Your task to perform on an android device: Go to Maps Image 0: 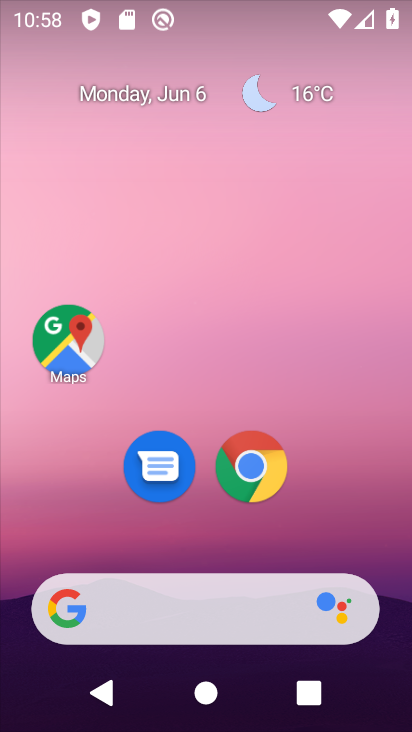
Step 0: click (40, 344)
Your task to perform on an android device: Go to Maps Image 1: 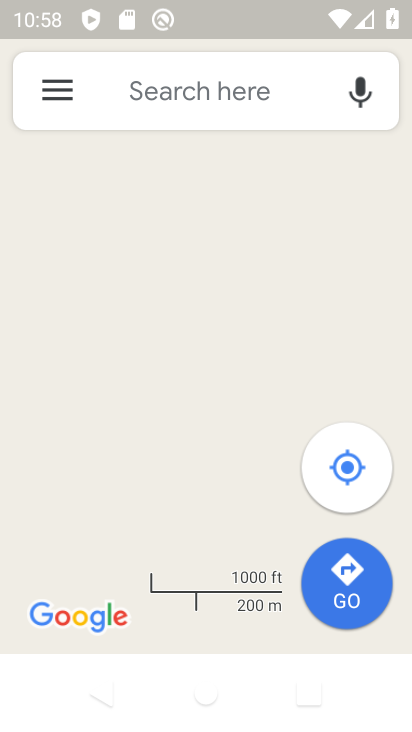
Step 1: task complete